Your task to perform on an android device: Open the map Image 0: 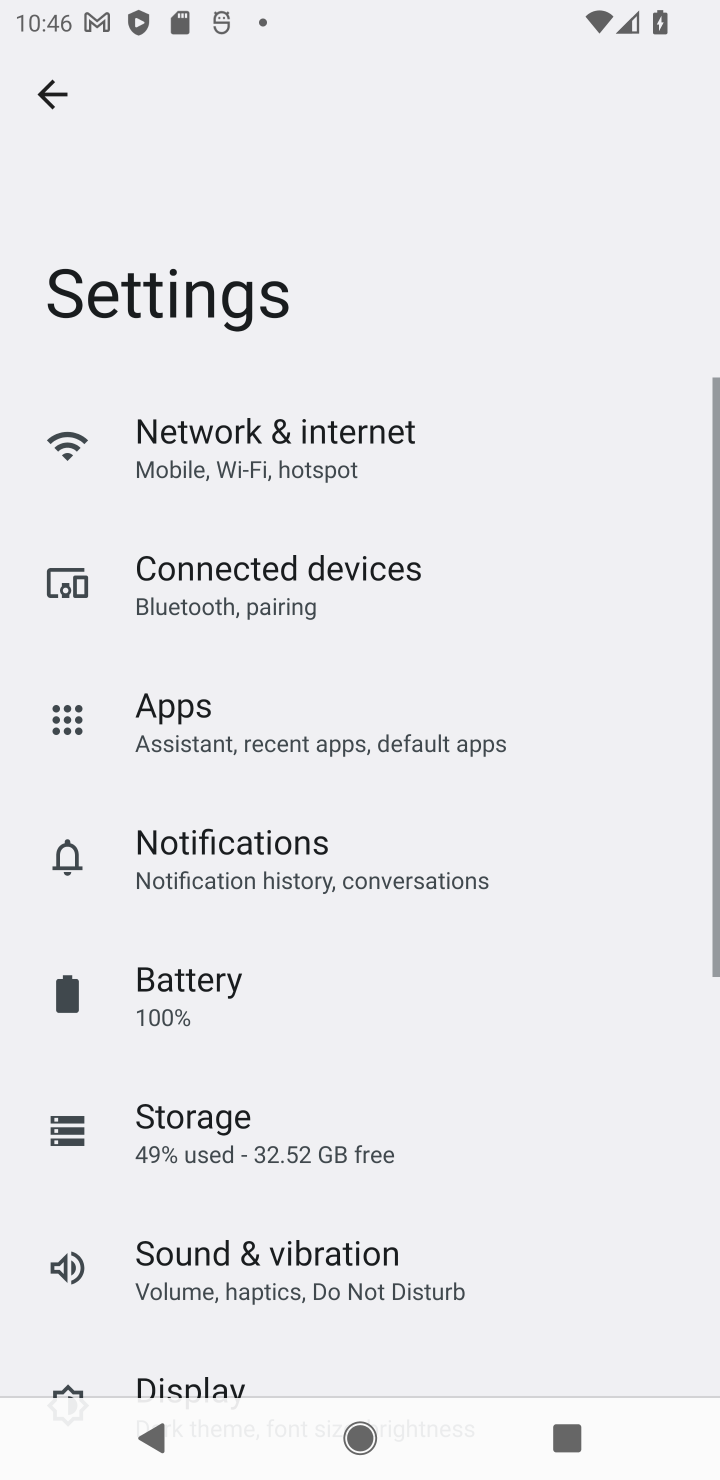
Step 0: press home button
Your task to perform on an android device: Open the map Image 1: 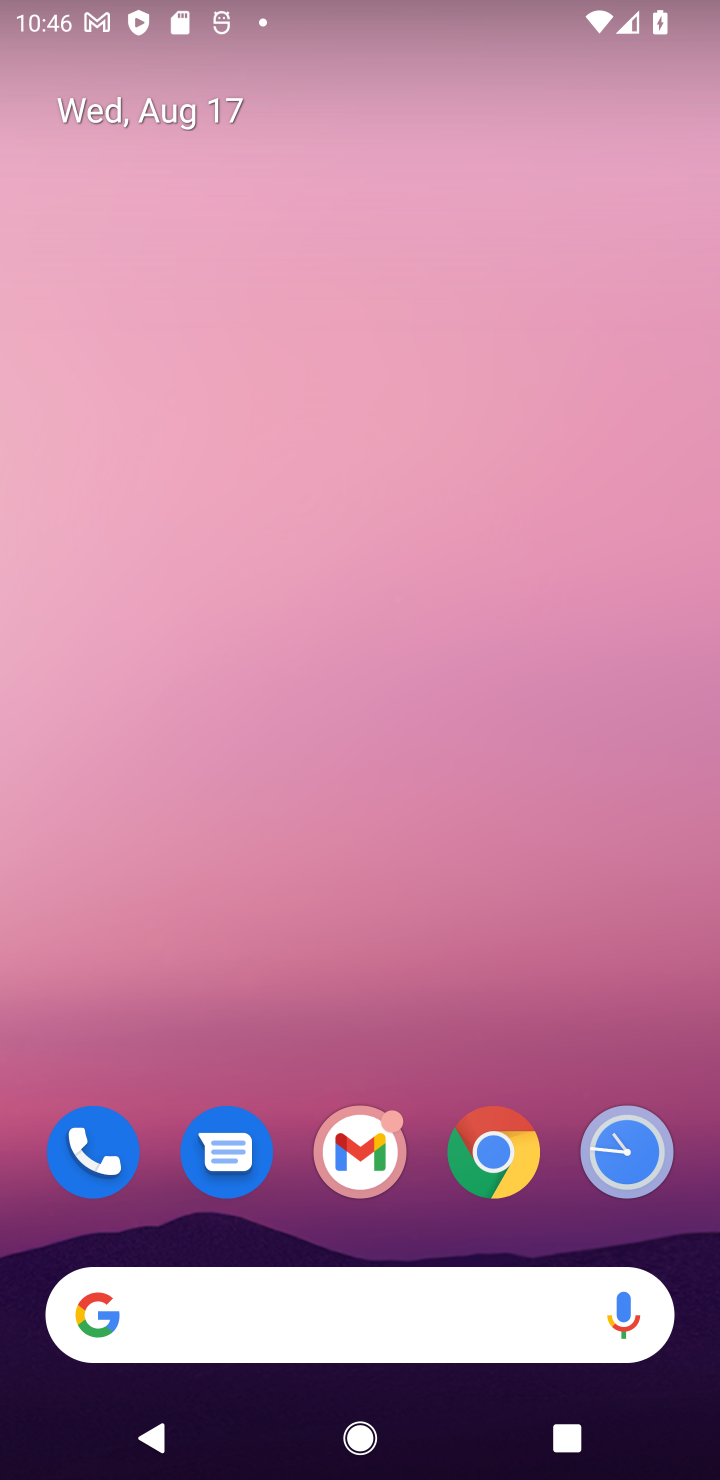
Step 1: drag from (585, 1254) to (469, 15)
Your task to perform on an android device: Open the map Image 2: 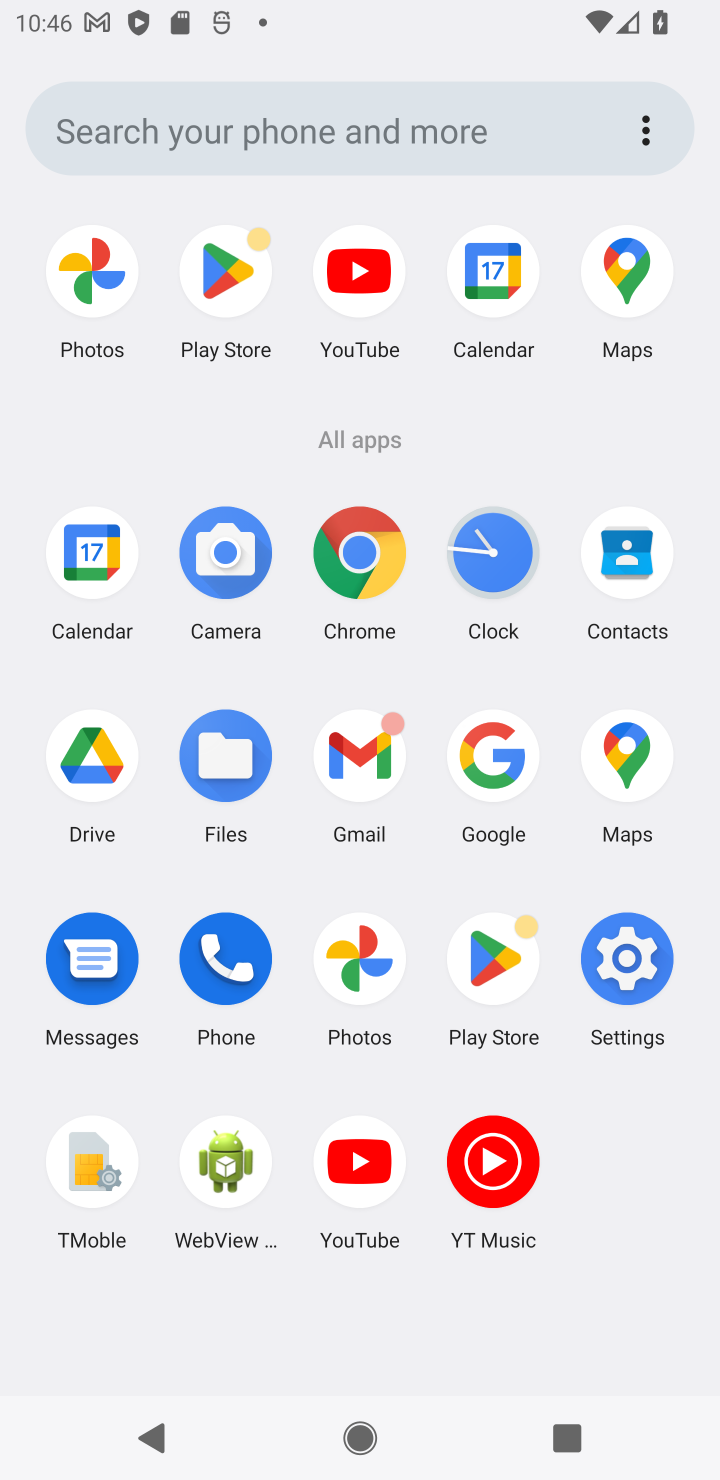
Step 2: click (629, 756)
Your task to perform on an android device: Open the map Image 3: 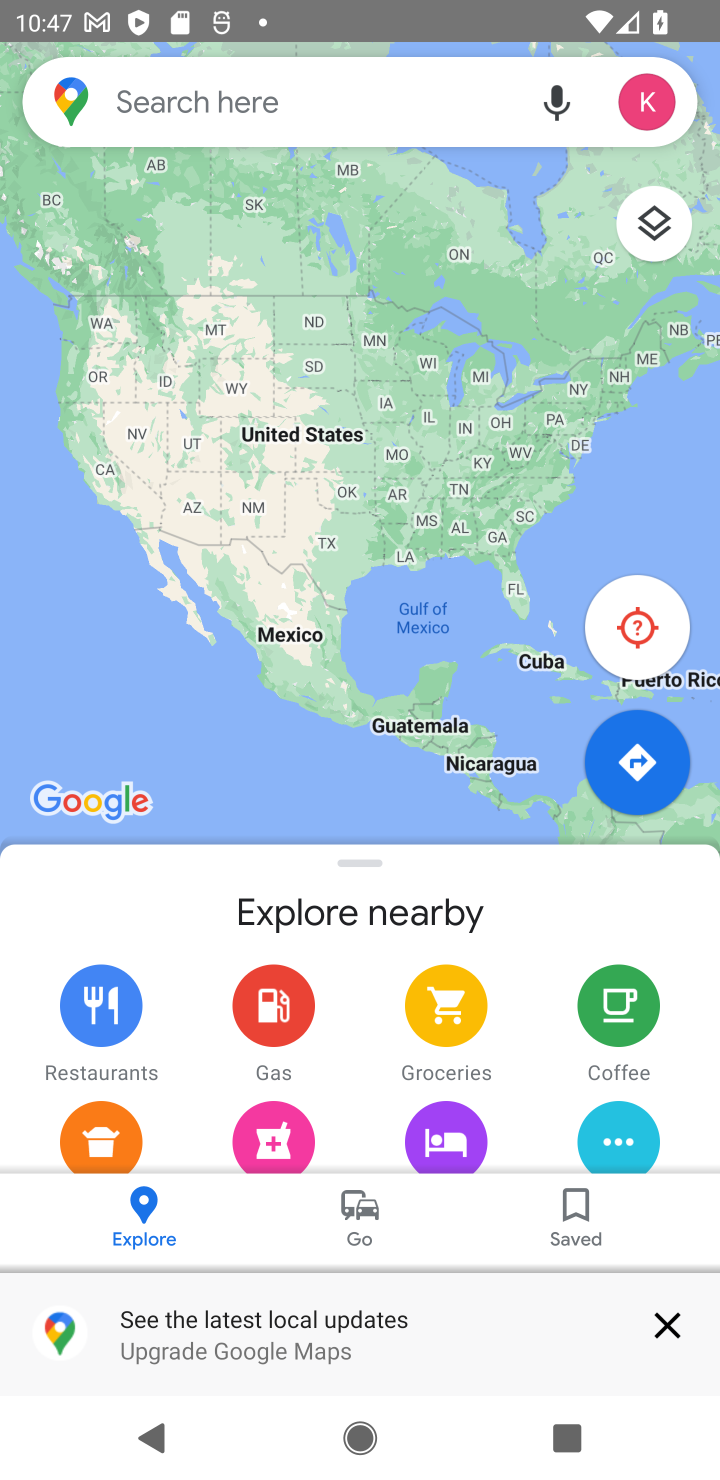
Step 3: task complete